Your task to perform on an android device: Open wifi settings Image 0: 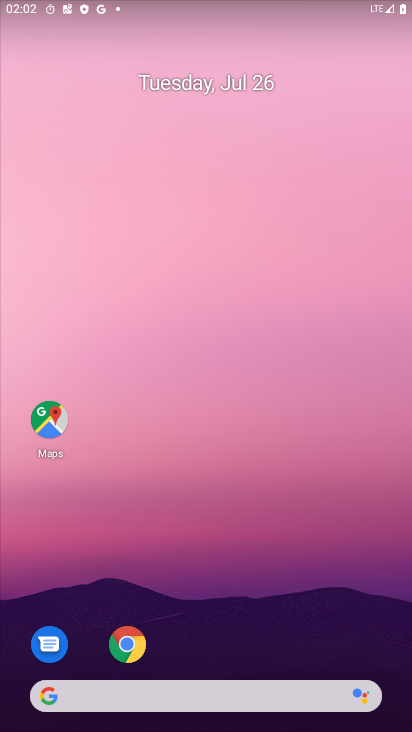
Step 0: drag from (250, 383) to (230, 7)
Your task to perform on an android device: Open wifi settings Image 1: 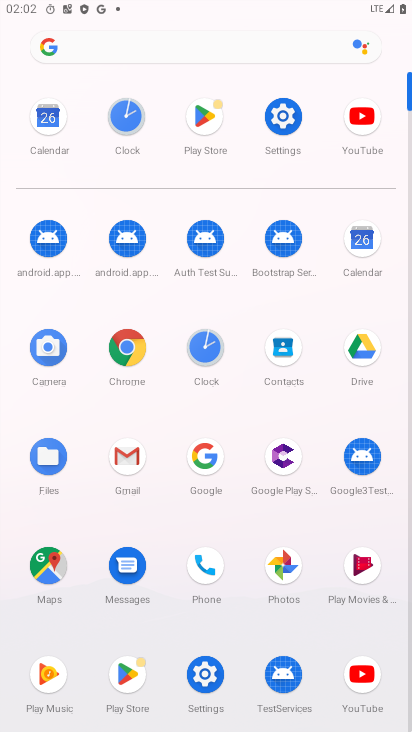
Step 1: click (285, 116)
Your task to perform on an android device: Open wifi settings Image 2: 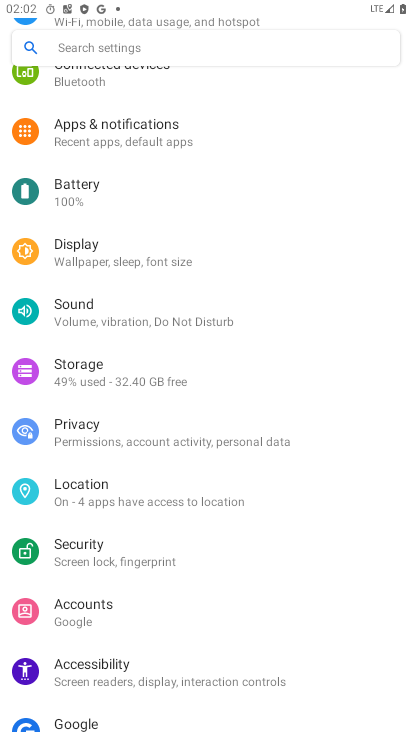
Step 2: drag from (252, 131) to (310, 524)
Your task to perform on an android device: Open wifi settings Image 3: 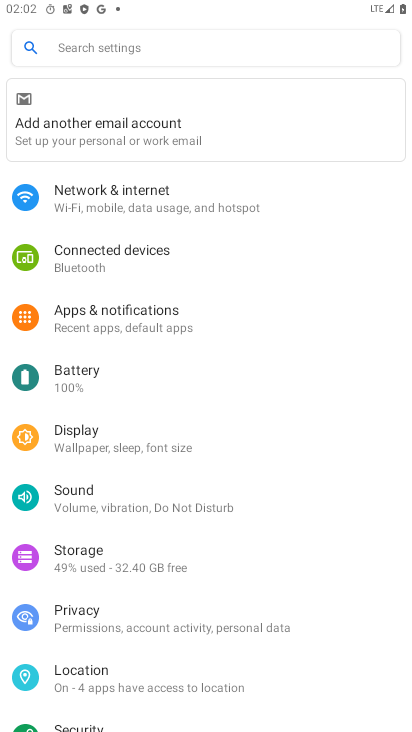
Step 3: click (70, 217)
Your task to perform on an android device: Open wifi settings Image 4: 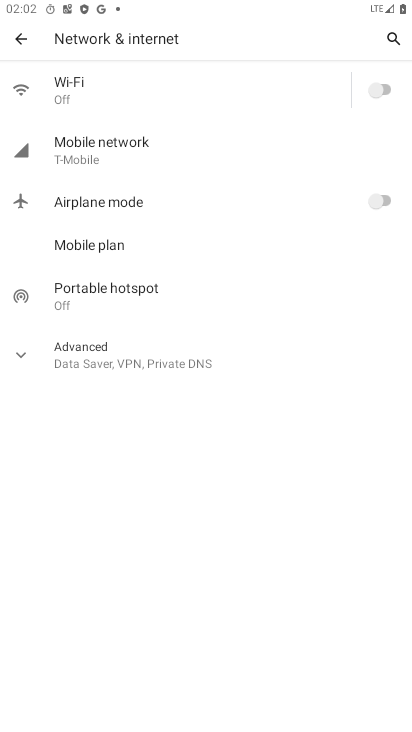
Step 4: click (18, 91)
Your task to perform on an android device: Open wifi settings Image 5: 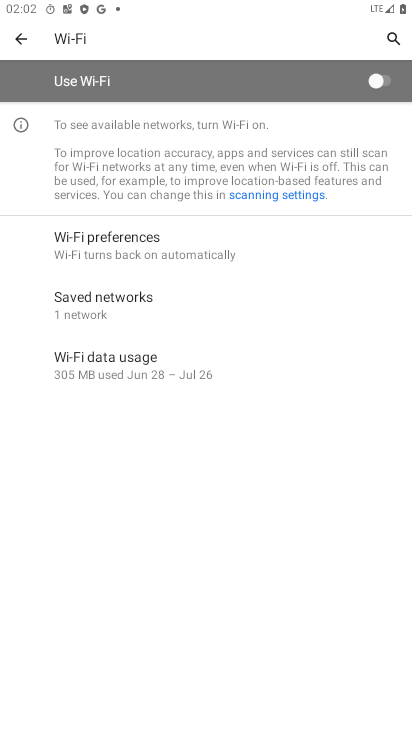
Step 5: task complete